Your task to perform on an android device: Open maps Image 0: 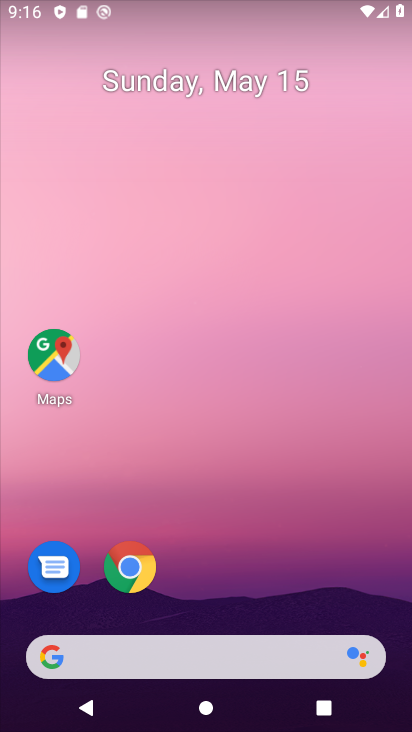
Step 0: click (61, 350)
Your task to perform on an android device: Open maps Image 1: 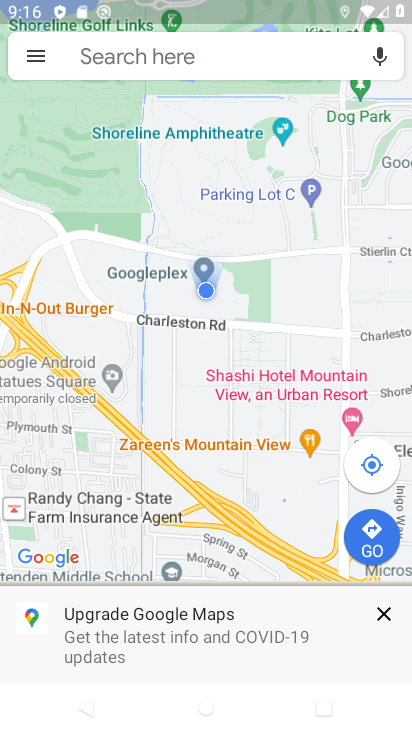
Step 1: task complete